Your task to perform on an android device: move a message to another label in the gmail app Image 0: 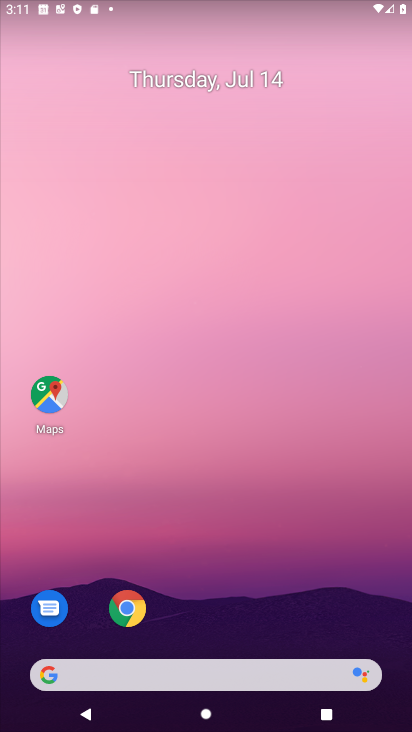
Step 0: drag from (288, 598) to (334, 11)
Your task to perform on an android device: move a message to another label in the gmail app Image 1: 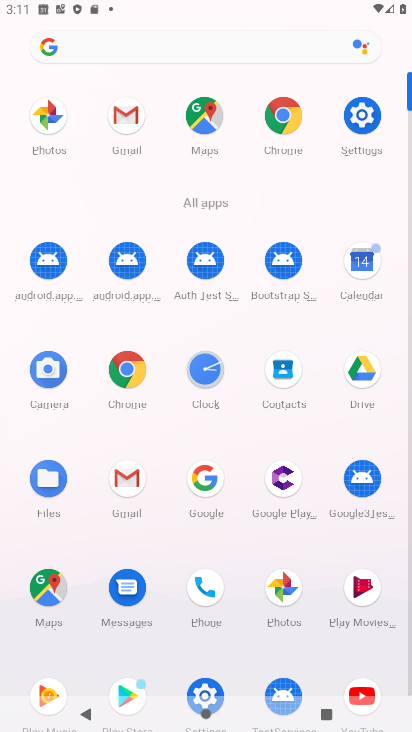
Step 1: click (116, 126)
Your task to perform on an android device: move a message to another label in the gmail app Image 2: 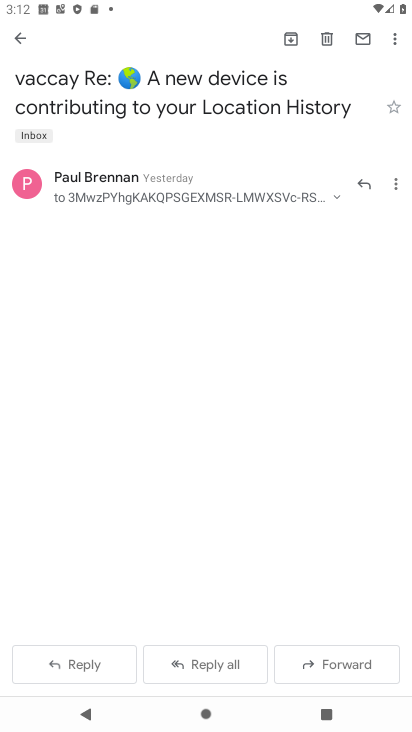
Step 2: click (16, 42)
Your task to perform on an android device: move a message to another label in the gmail app Image 3: 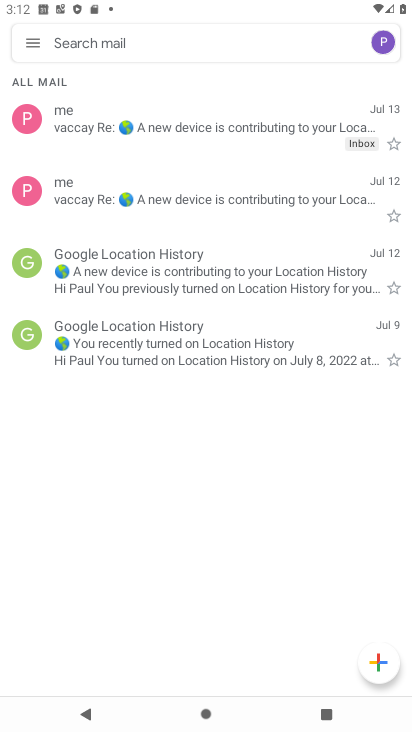
Step 3: click (68, 134)
Your task to perform on an android device: move a message to another label in the gmail app Image 4: 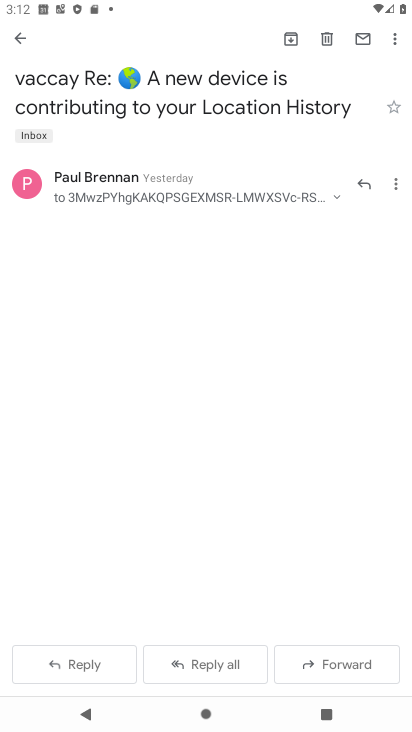
Step 4: click (39, 137)
Your task to perform on an android device: move a message to another label in the gmail app Image 5: 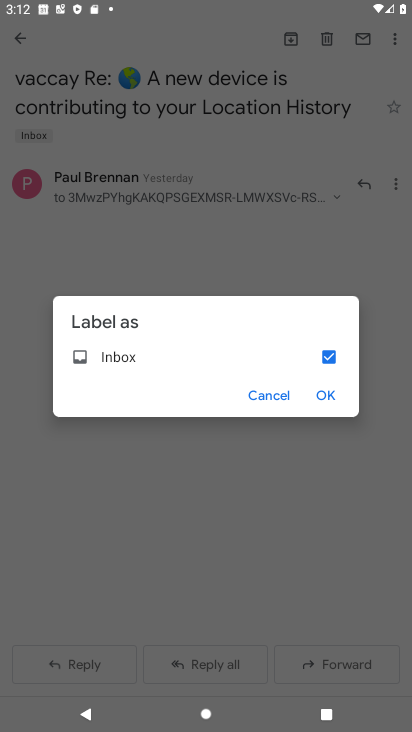
Step 5: click (330, 357)
Your task to perform on an android device: move a message to another label in the gmail app Image 6: 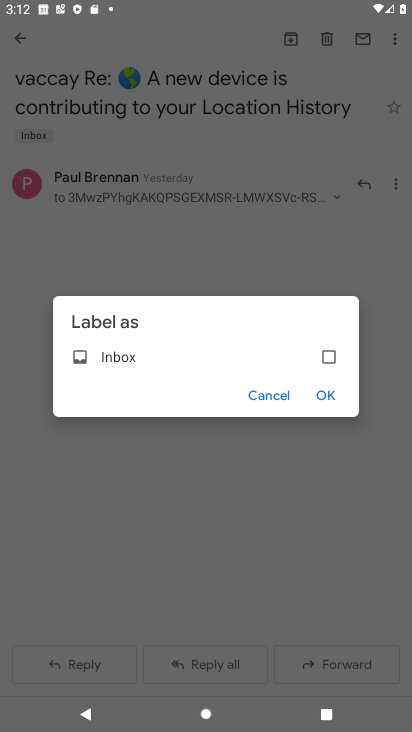
Step 6: click (330, 389)
Your task to perform on an android device: move a message to another label in the gmail app Image 7: 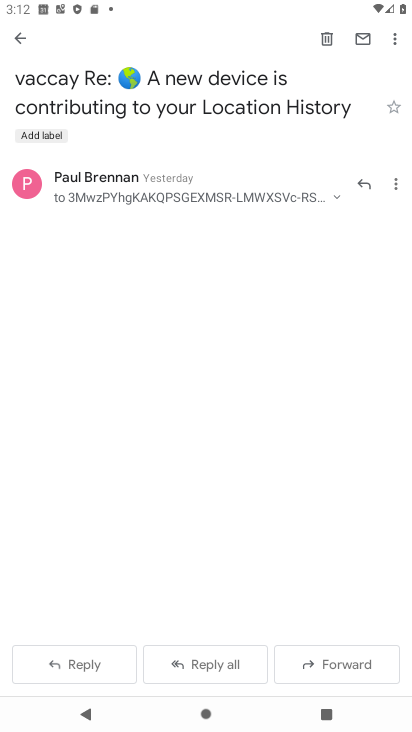
Step 7: task complete